Your task to perform on an android device: Go to notification settings Image 0: 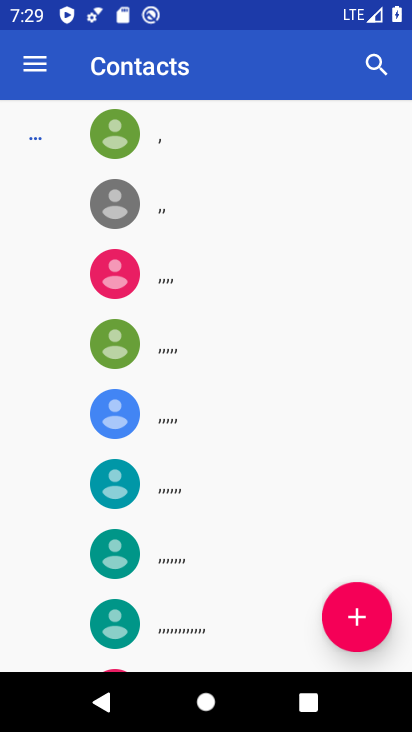
Step 0: press home button
Your task to perform on an android device: Go to notification settings Image 1: 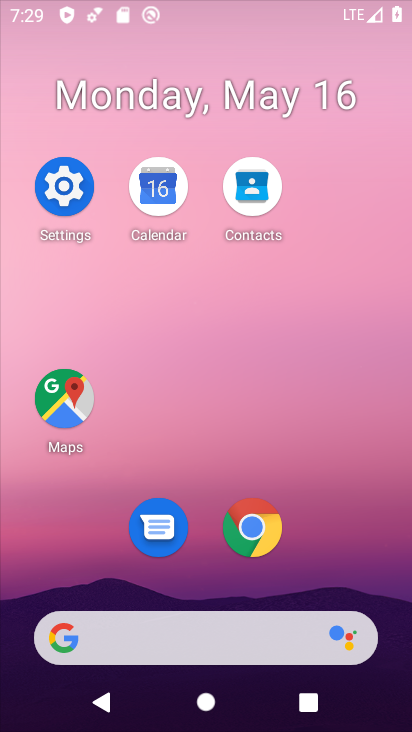
Step 1: click (83, 196)
Your task to perform on an android device: Go to notification settings Image 2: 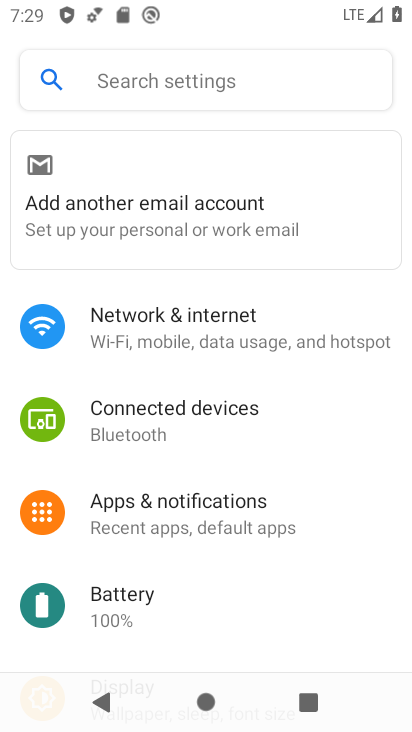
Step 2: click (179, 501)
Your task to perform on an android device: Go to notification settings Image 3: 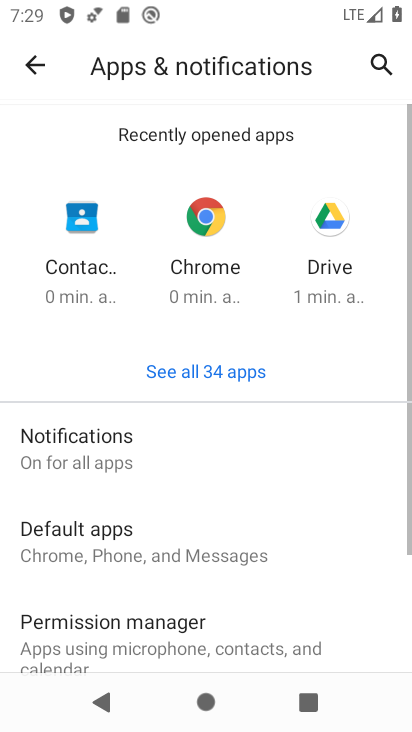
Step 3: task complete